Your task to perform on an android device: delete a single message in the gmail app Image 0: 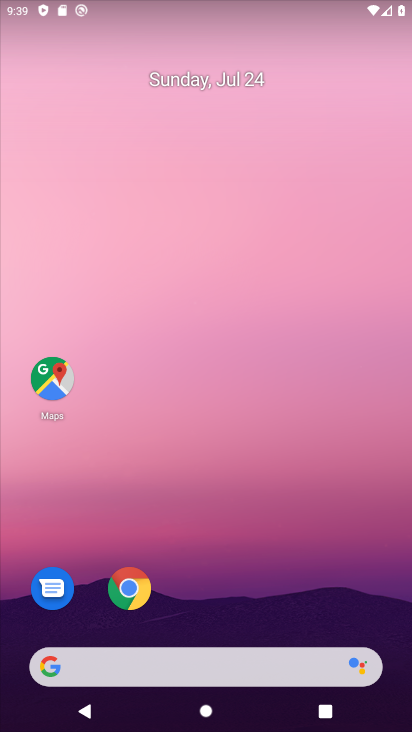
Step 0: click (245, 137)
Your task to perform on an android device: delete a single message in the gmail app Image 1: 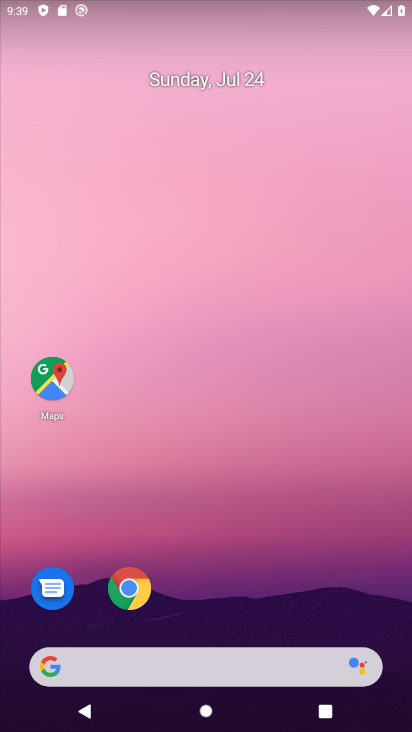
Step 1: drag from (280, 611) to (246, 122)
Your task to perform on an android device: delete a single message in the gmail app Image 2: 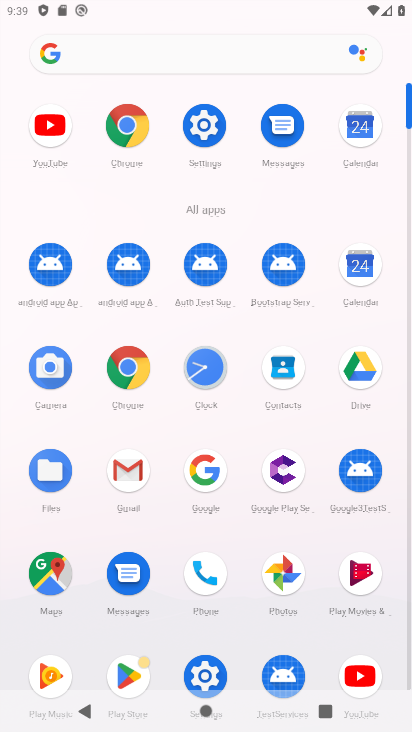
Step 2: click (135, 466)
Your task to perform on an android device: delete a single message in the gmail app Image 3: 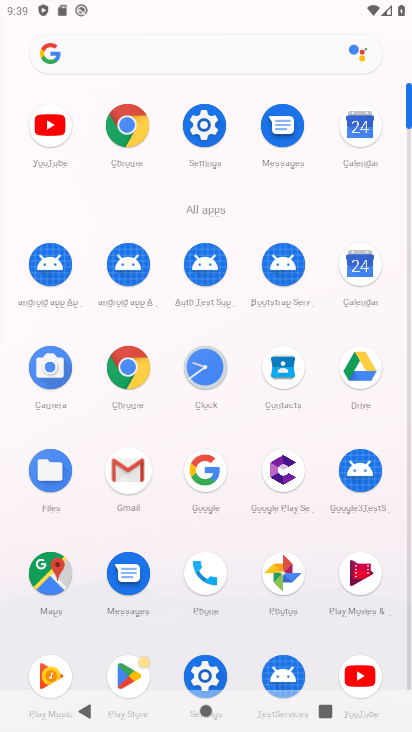
Step 3: click (136, 468)
Your task to perform on an android device: delete a single message in the gmail app Image 4: 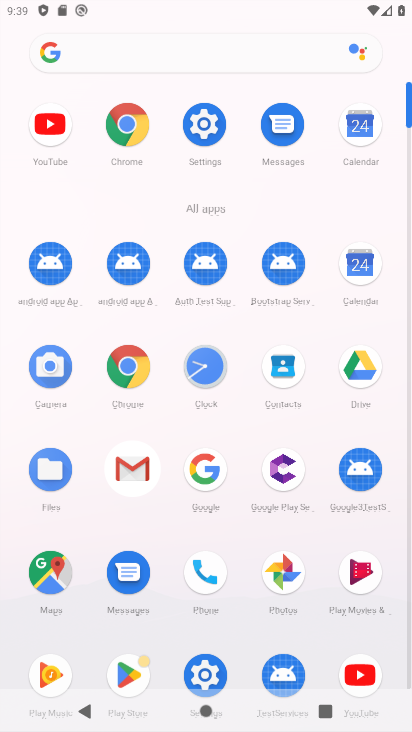
Step 4: click (140, 469)
Your task to perform on an android device: delete a single message in the gmail app Image 5: 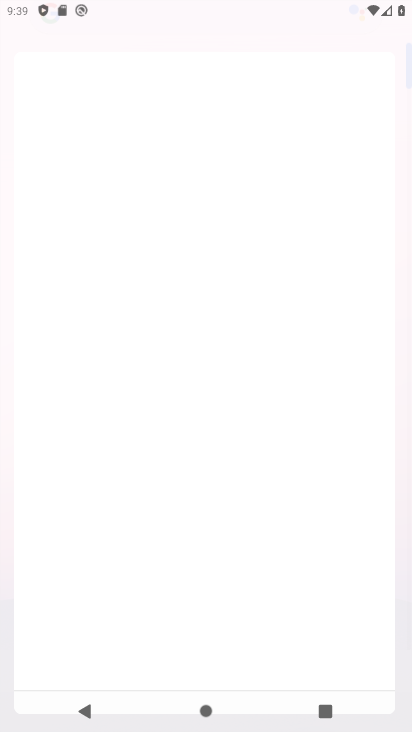
Step 5: click (142, 469)
Your task to perform on an android device: delete a single message in the gmail app Image 6: 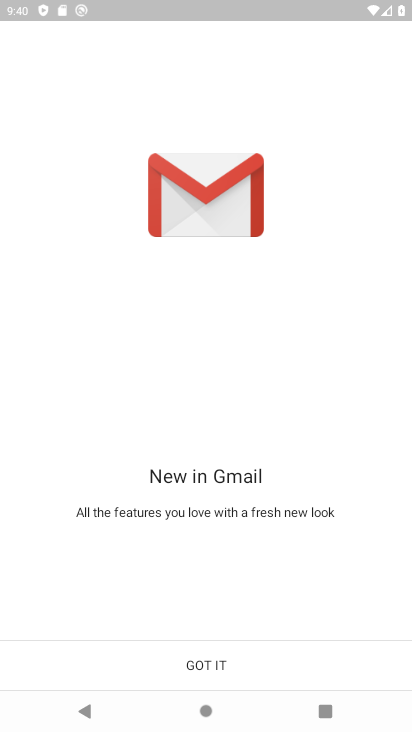
Step 6: click (221, 658)
Your task to perform on an android device: delete a single message in the gmail app Image 7: 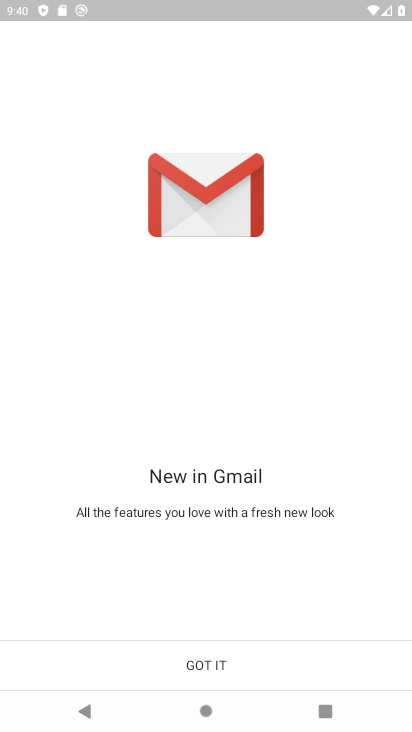
Step 7: click (221, 658)
Your task to perform on an android device: delete a single message in the gmail app Image 8: 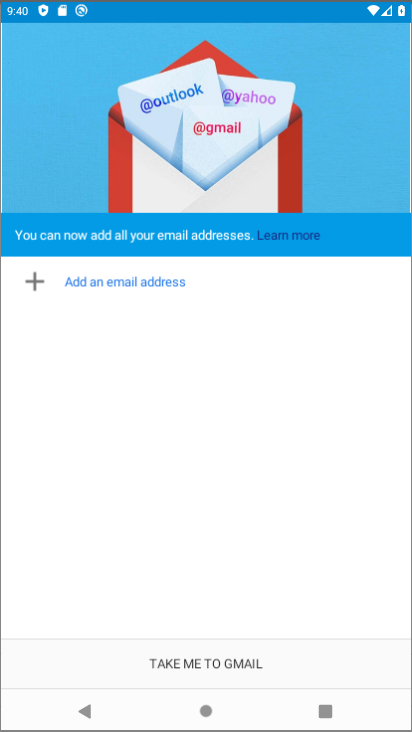
Step 8: click (228, 661)
Your task to perform on an android device: delete a single message in the gmail app Image 9: 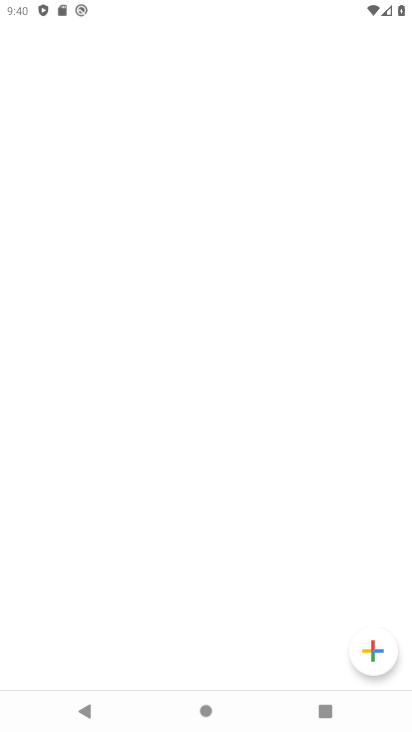
Step 9: click (229, 651)
Your task to perform on an android device: delete a single message in the gmail app Image 10: 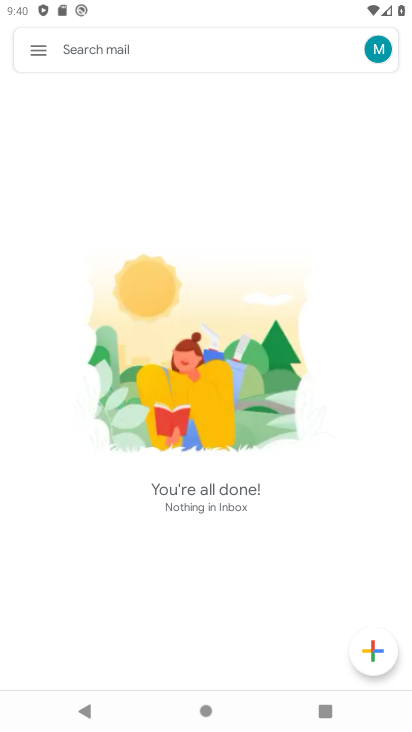
Step 10: click (49, 40)
Your task to perform on an android device: delete a single message in the gmail app Image 11: 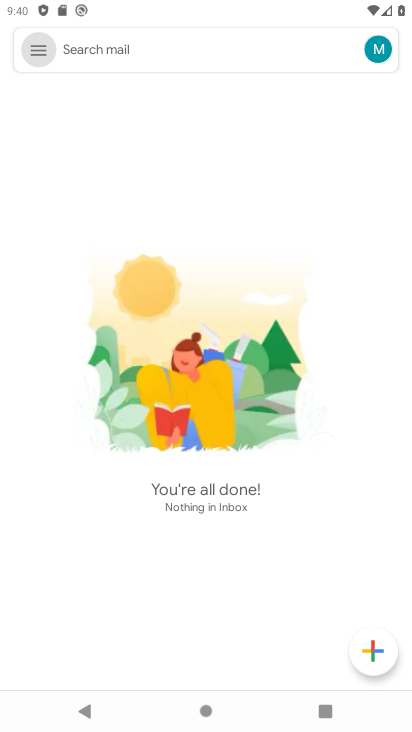
Step 11: click (48, 52)
Your task to perform on an android device: delete a single message in the gmail app Image 12: 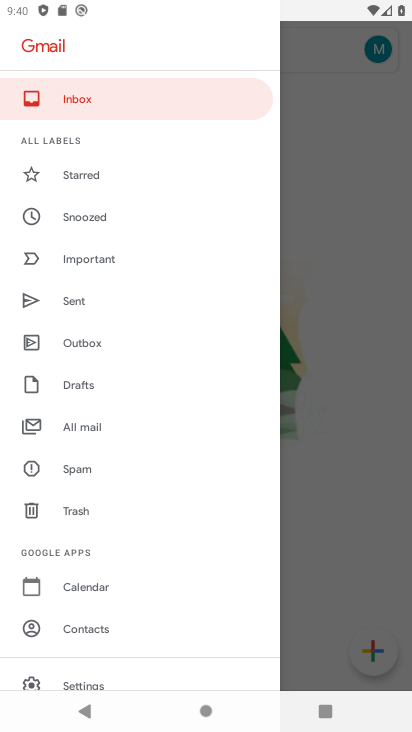
Step 12: click (79, 423)
Your task to perform on an android device: delete a single message in the gmail app Image 13: 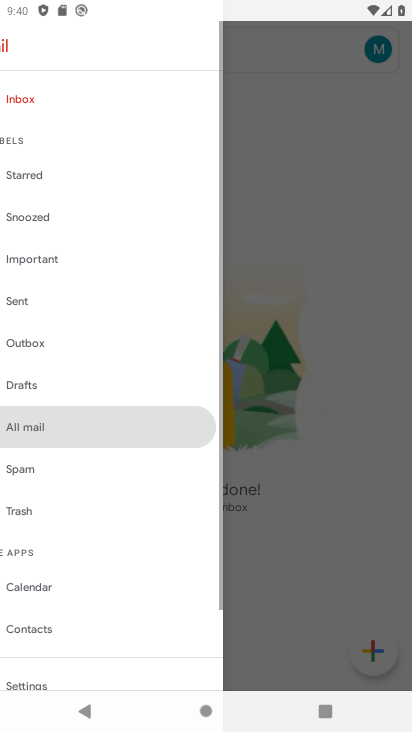
Step 13: click (80, 422)
Your task to perform on an android device: delete a single message in the gmail app Image 14: 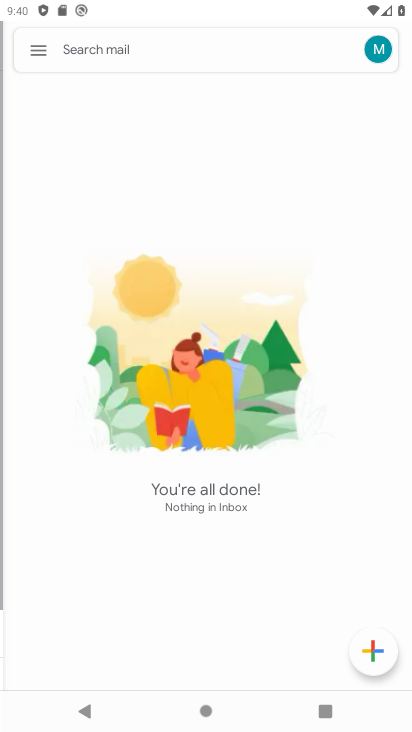
Step 14: click (90, 427)
Your task to perform on an android device: delete a single message in the gmail app Image 15: 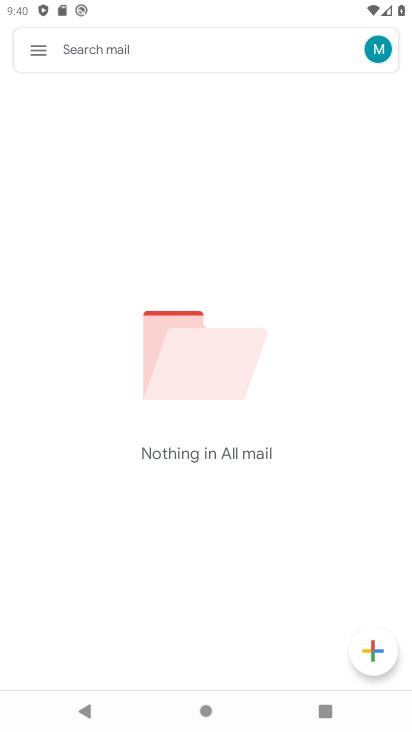
Step 15: click (45, 56)
Your task to perform on an android device: delete a single message in the gmail app Image 16: 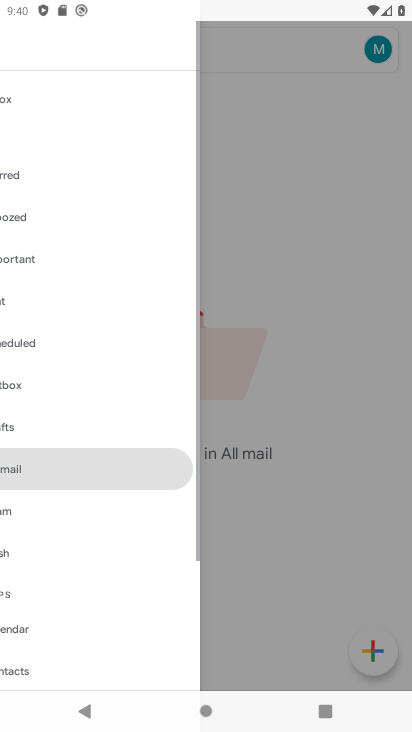
Step 16: click (46, 65)
Your task to perform on an android device: delete a single message in the gmail app Image 17: 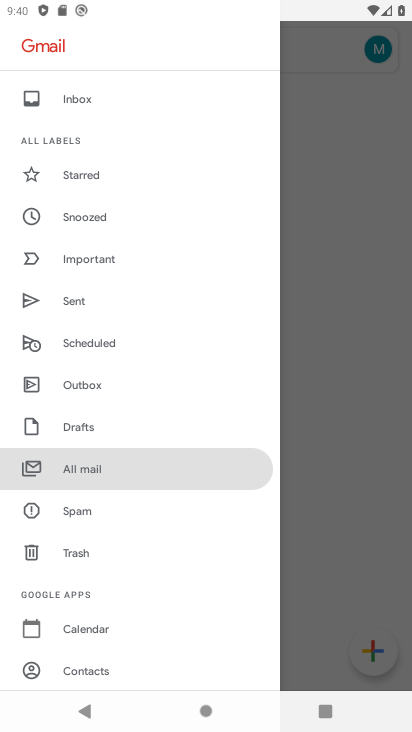
Step 17: click (81, 456)
Your task to perform on an android device: delete a single message in the gmail app Image 18: 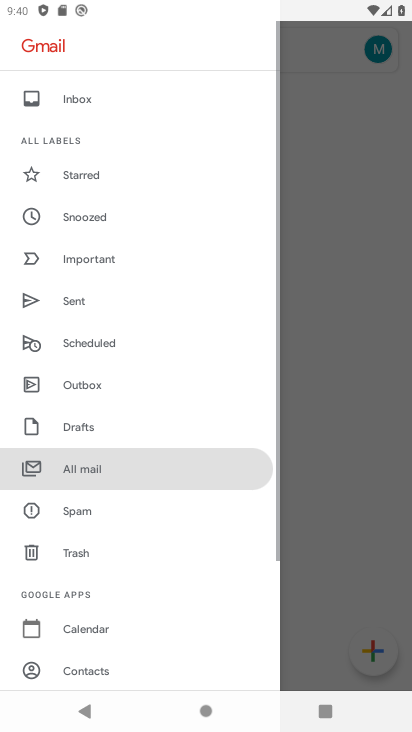
Step 18: click (81, 456)
Your task to perform on an android device: delete a single message in the gmail app Image 19: 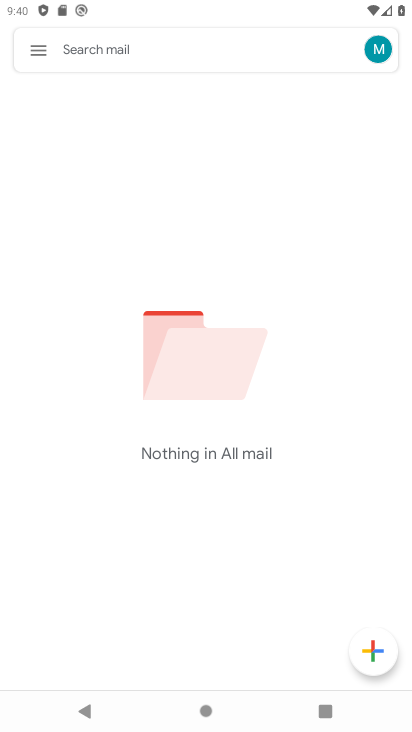
Step 19: click (81, 456)
Your task to perform on an android device: delete a single message in the gmail app Image 20: 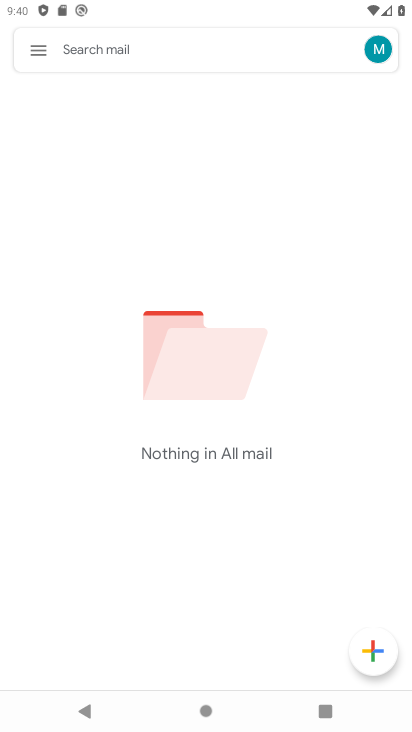
Step 20: task complete